Your task to perform on an android device: toggle show notifications on the lock screen Image 0: 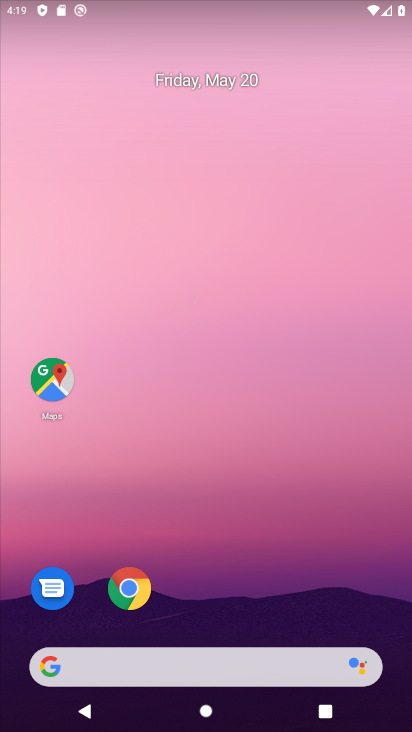
Step 0: drag from (244, 593) to (255, 160)
Your task to perform on an android device: toggle show notifications on the lock screen Image 1: 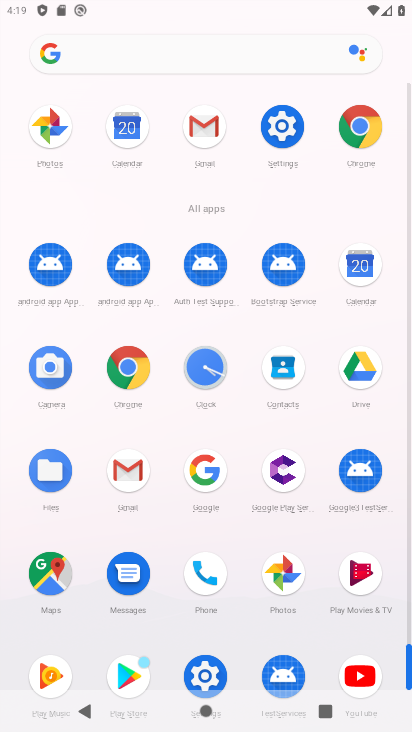
Step 1: click (289, 129)
Your task to perform on an android device: toggle show notifications on the lock screen Image 2: 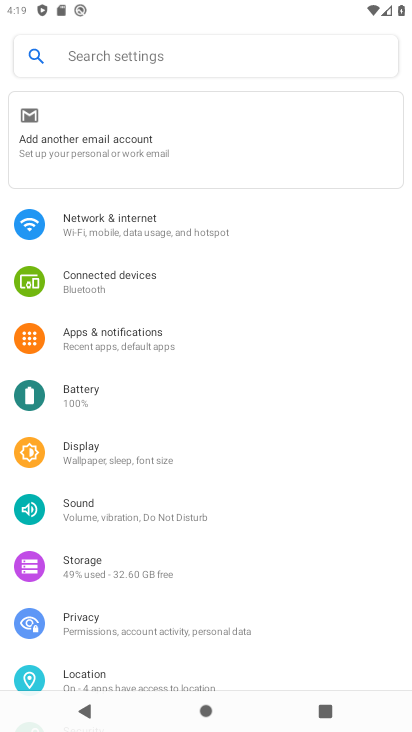
Step 2: click (112, 337)
Your task to perform on an android device: toggle show notifications on the lock screen Image 3: 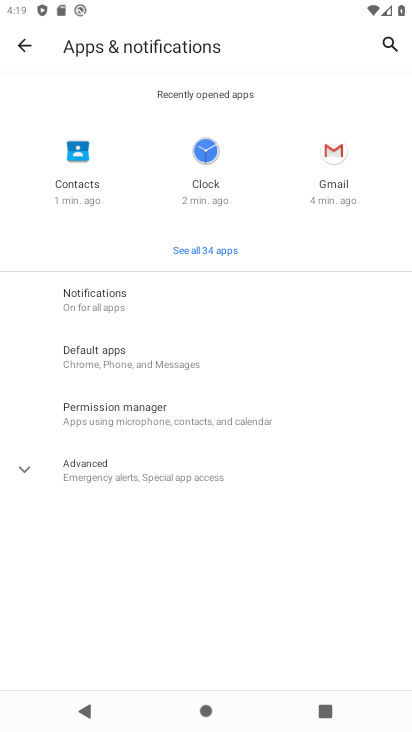
Step 3: click (94, 307)
Your task to perform on an android device: toggle show notifications on the lock screen Image 4: 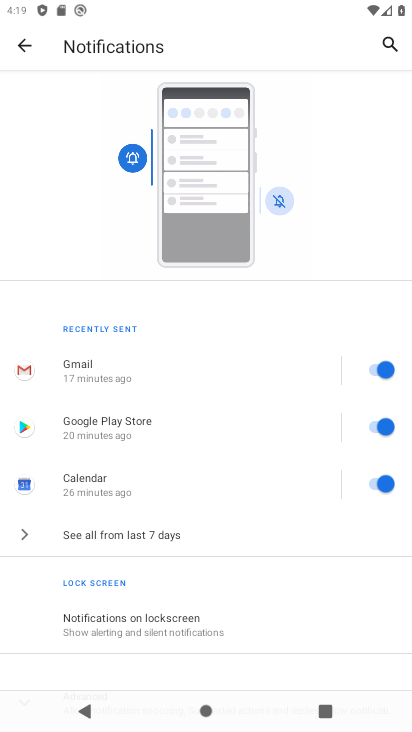
Step 4: click (177, 619)
Your task to perform on an android device: toggle show notifications on the lock screen Image 5: 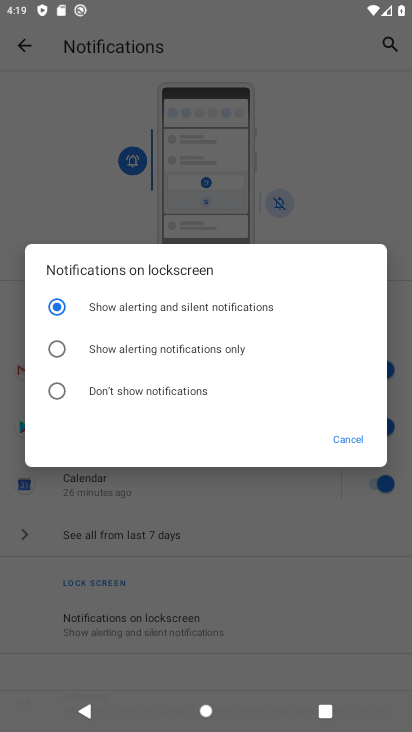
Step 5: click (87, 345)
Your task to perform on an android device: toggle show notifications on the lock screen Image 6: 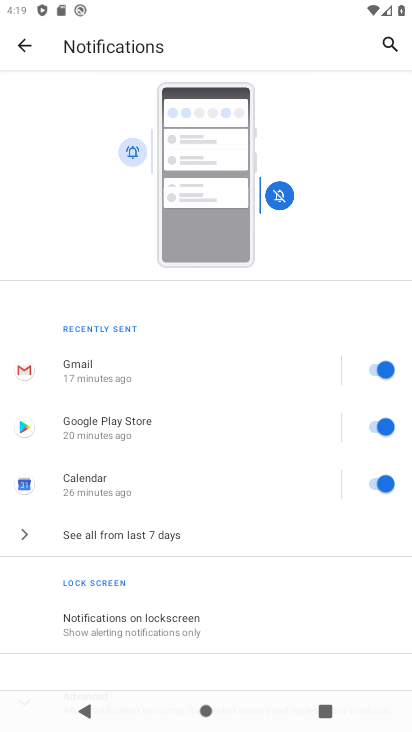
Step 6: task complete